Your task to perform on an android device: Go to battery settings Image 0: 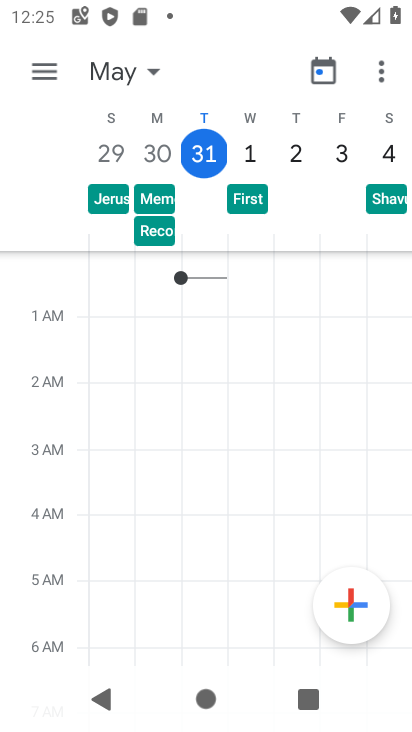
Step 0: press home button
Your task to perform on an android device: Go to battery settings Image 1: 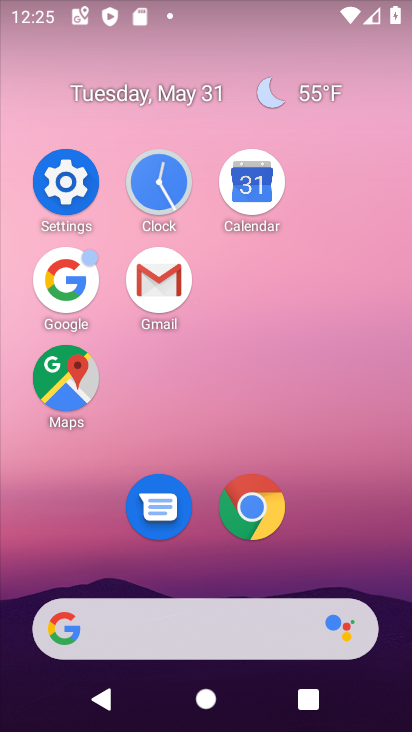
Step 1: click (69, 172)
Your task to perform on an android device: Go to battery settings Image 2: 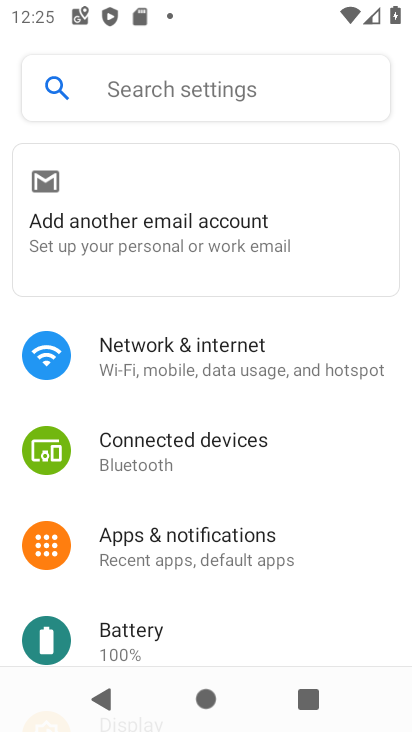
Step 2: click (226, 617)
Your task to perform on an android device: Go to battery settings Image 3: 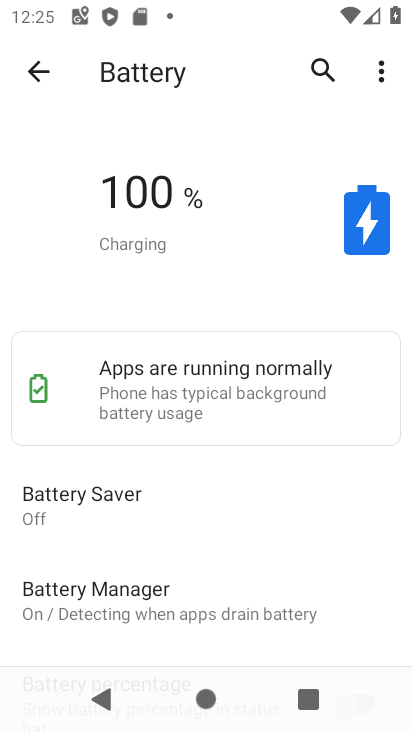
Step 3: task complete